Your task to perform on an android device: View the shopping cart on bestbuy.com. Add razer huntsman to the cart on bestbuy.com Image 0: 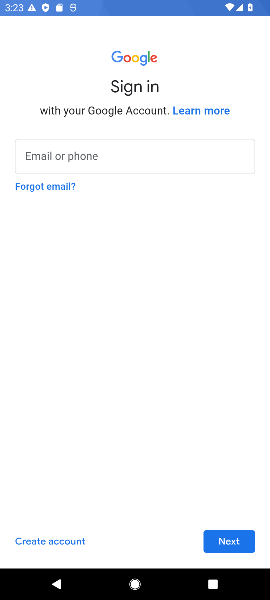
Step 0: press home button
Your task to perform on an android device: View the shopping cart on bestbuy.com. Add razer huntsman to the cart on bestbuy.com Image 1: 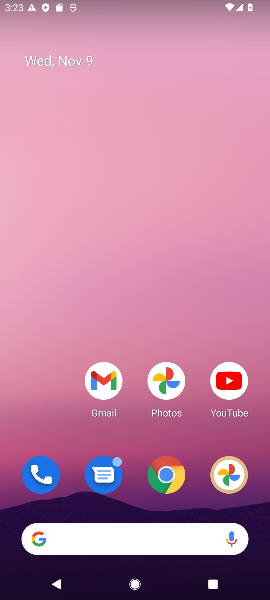
Step 1: drag from (164, 483) to (145, 79)
Your task to perform on an android device: View the shopping cart on bestbuy.com. Add razer huntsman to the cart on bestbuy.com Image 2: 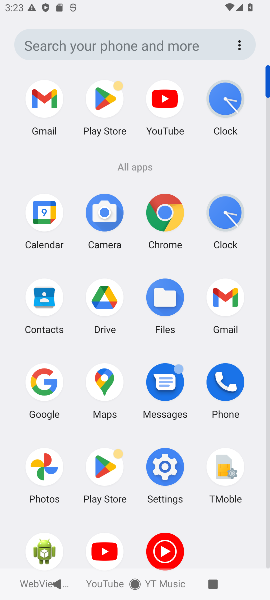
Step 2: click (162, 209)
Your task to perform on an android device: View the shopping cart on bestbuy.com. Add razer huntsman to the cart on bestbuy.com Image 3: 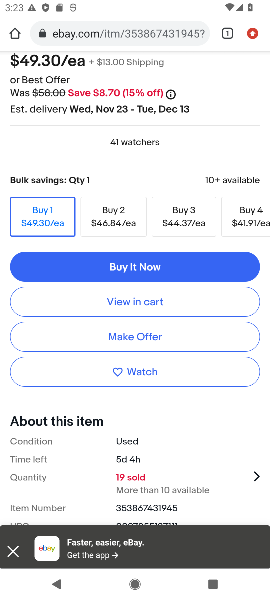
Step 3: click (140, 26)
Your task to perform on an android device: View the shopping cart on bestbuy.com. Add razer huntsman to the cart on bestbuy.com Image 4: 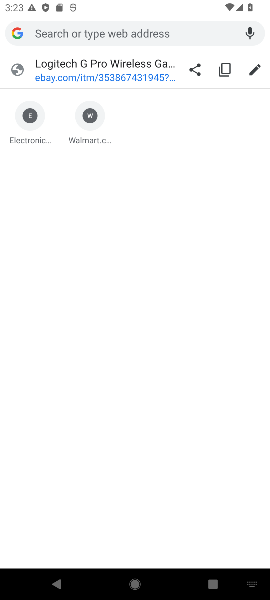
Step 4: type " bestbuy.com"
Your task to perform on an android device: View the shopping cart on bestbuy.com. Add razer huntsman to the cart on bestbuy.com Image 5: 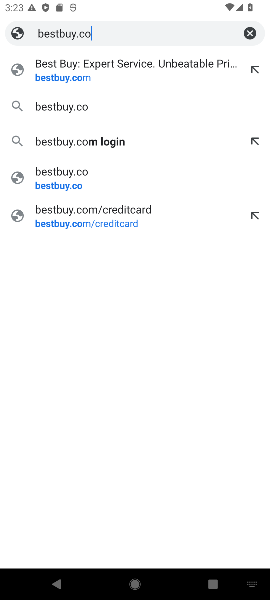
Step 5: press enter
Your task to perform on an android device: View the shopping cart on bestbuy.com. Add razer huntsman to the cart on bestbuy.com Image 6: 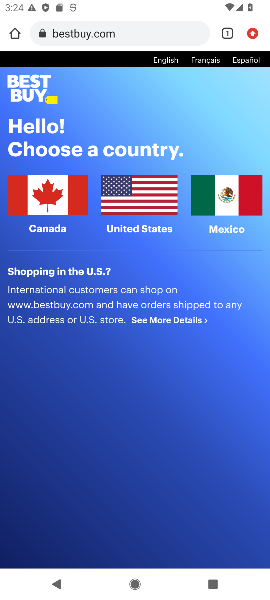
Step 6: click (63, 203)
Your task to perform on an android device: View the shopping cart on bestbuy.com. Add razer huntsman to the cart on bestbuy.com Image 7: 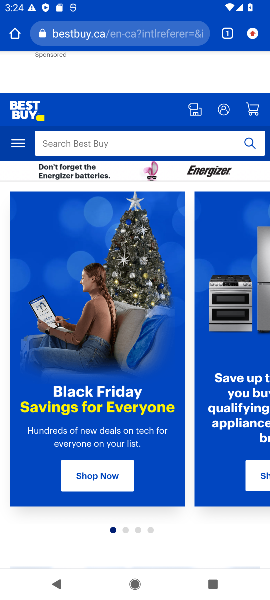
Step 7: click (108, 135)
Your task to perform on an android device: View the shopping cart on bestbuy.com. Add razer huntsman to the cart on bestbuy.com Image 8: 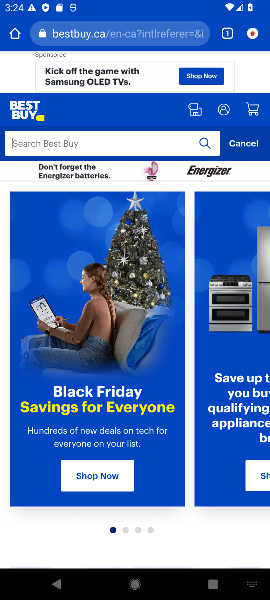
Step 8: type "razer huntsman "
Your task to perform on an android device: View the shopping cart on bestbuy.com. Add razer huntsman to the cart on bestbuy.com Image 9: 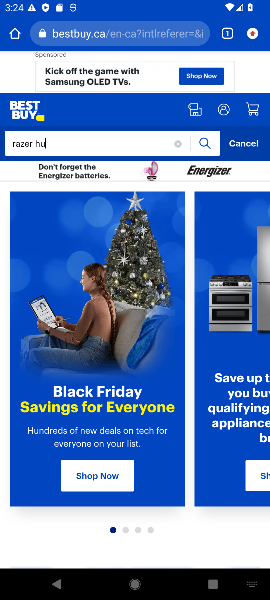
Step 9: press enter
Your task to perform on an android device: View the shopping cart on bestbuy.com. Add razer huntsman to the cart on bestbuy.com Image 10: 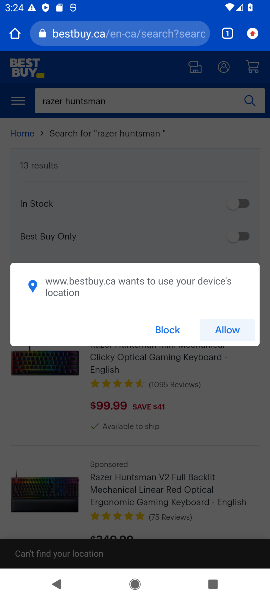
Step 10: click (236, 335)
Your task to perform on an android device: View the shopping cart on bestbuy.com. Add razer huntsman to the cart on bestbuy.com Image 11: 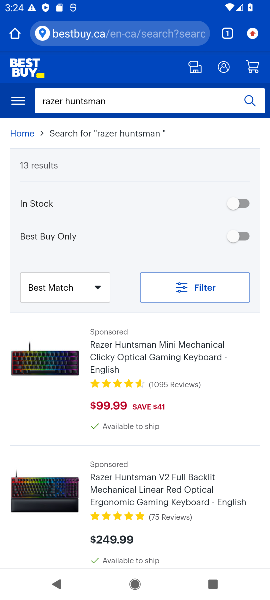
Step 11: click (194, 344)
Your task to perform on an android device: View the shopping cart on bestbuy.com. Add razer huntsman to the cart on bestbuy.com Image 12: 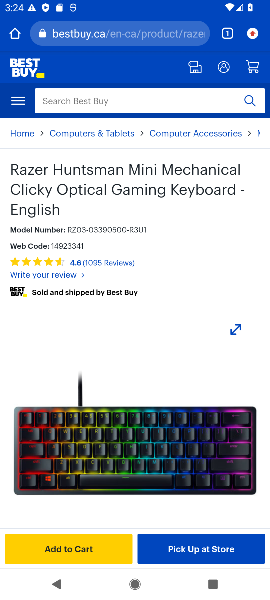
Step 12: click (85, 546)
Your task to perform on an android device: View the shopping cart on bestbuy.com. Add razer huntsman to the cart on bestbuy.com Image 13: 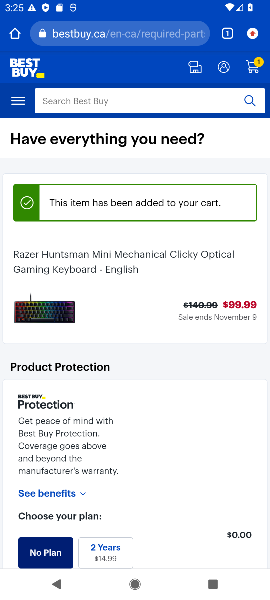
Step 13: task complete